Your task to perform on an android device: Open privacy settings Image 0: 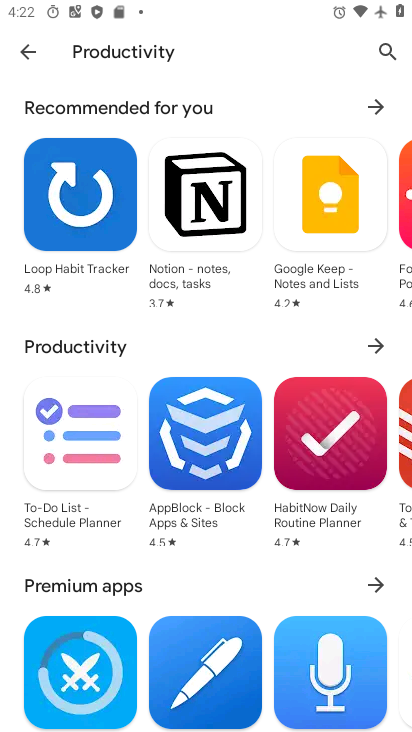
Step 0: press back button
Your task to perform on an android device: Open privacy settings Image 1: 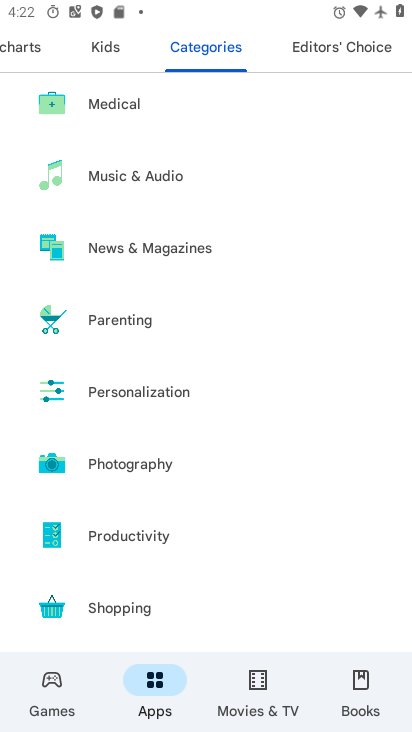
Step 1: press home button
Your task to perform on an android device: Open privacy settings Image 2: 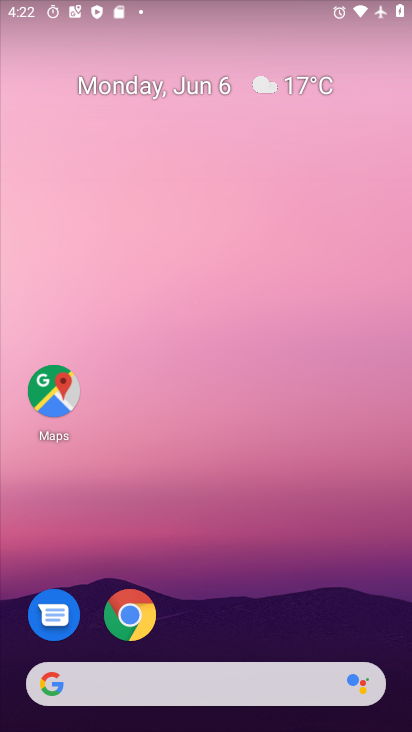
Step 2: drag from (274, 609) to (221, 50)
Your task to perform on an android device: Open privacy settings Image 3: 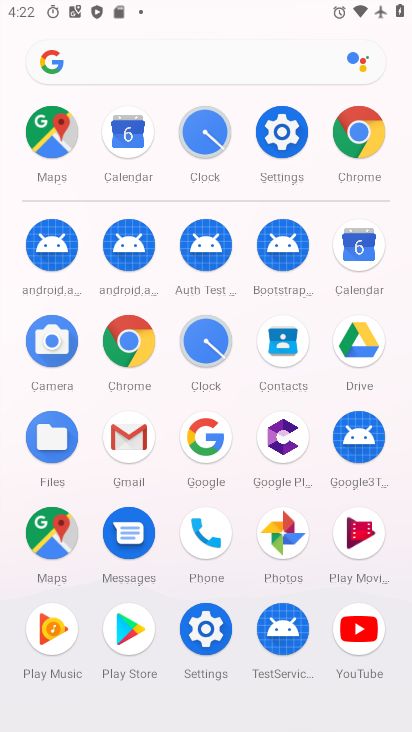
Step 3: click (203, 622)
Your task to perform on an android device: Open privacy settings Image 4: 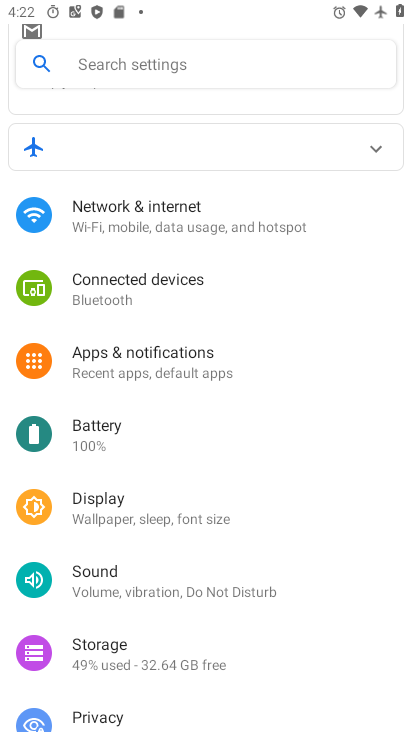
Step 4: drag from (220, 615) to (224, 260)
Your task to perform on an android device: Open privacy settings Image 5: 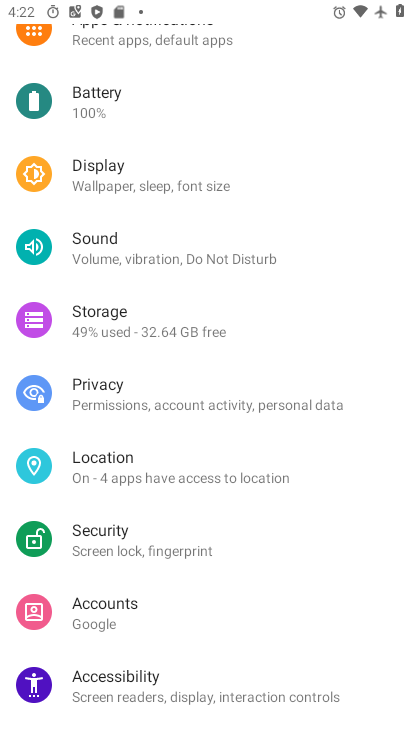
Step 5: click (156, 395)
Your task to perform on an android device: Open privacy settings Image 6: 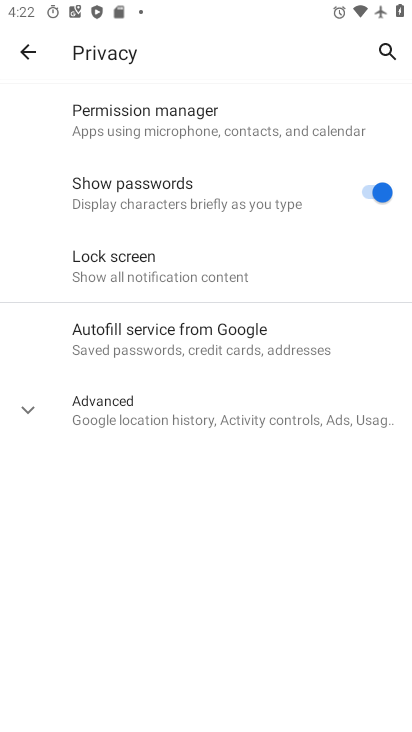
Step 6: click (33, 396)
Your task to perform on an android device: Open privacy settings Image 7: 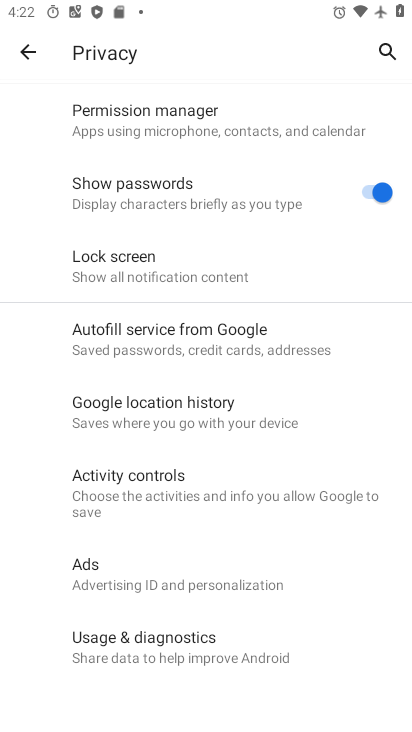
Step 7: task complete